Your task to perform on an android device: Is it going to rain this weekend? Image 0: 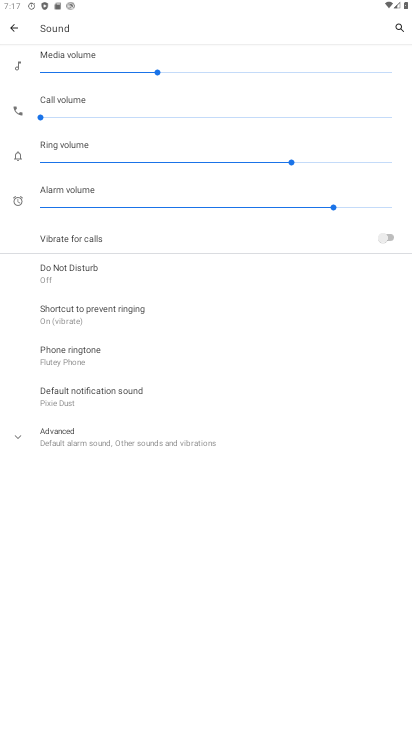
Step 0: press home button
Your task to perform on an android device: Is it going to rain this weekend? Image 1: 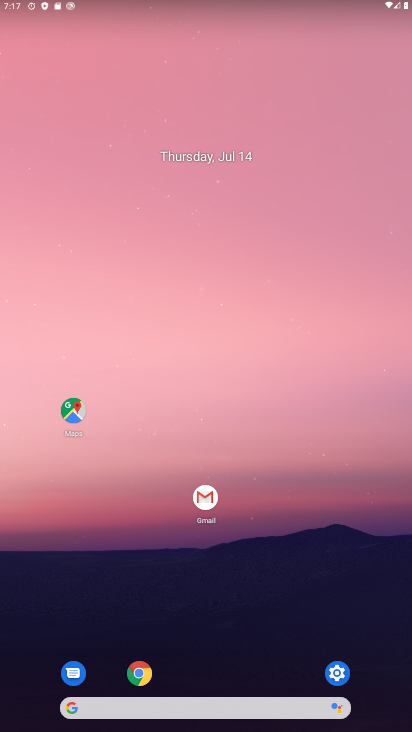
Step 1: click (196, 710)
Your task to perform on an android device: Is it going to rain this weekend? Image 2: 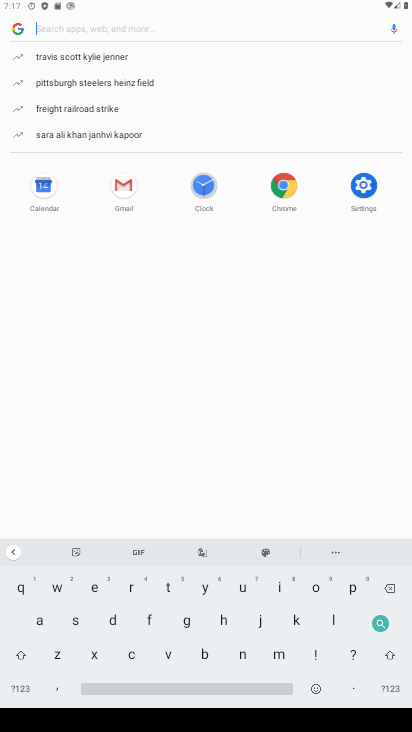
Step 2: click (128, 580)
Your task to perform on an android device: Is it going to rain this weekend? Image 3: 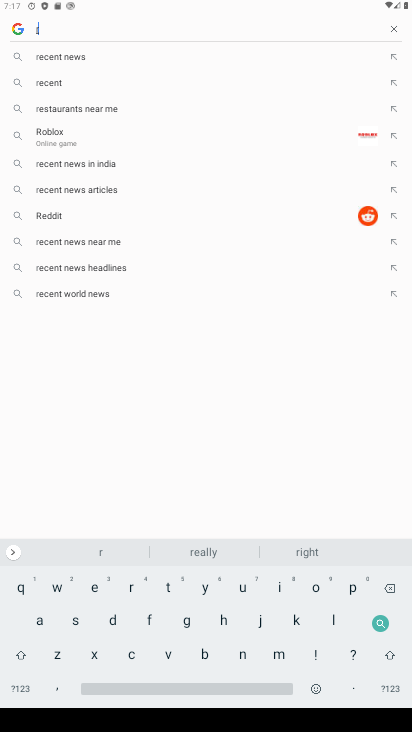
Step 3: click (30, 619)
Your task to perform on an android device: Is it going to rain this weekend? Image 4: 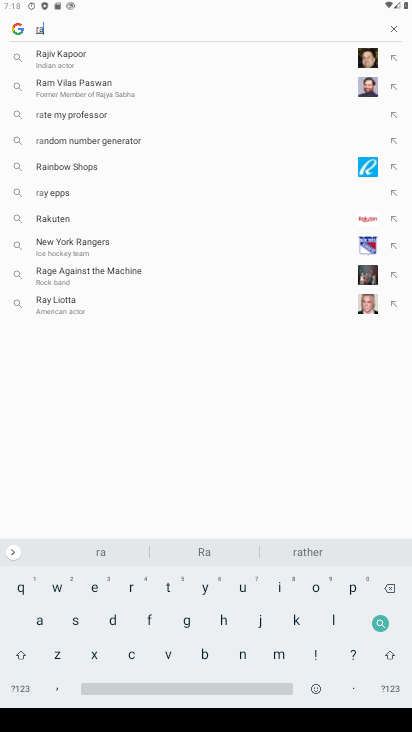
Step 4: click (280, 585)
Your task to perform on an android device: Is it going to rain this weekend? Image 5: 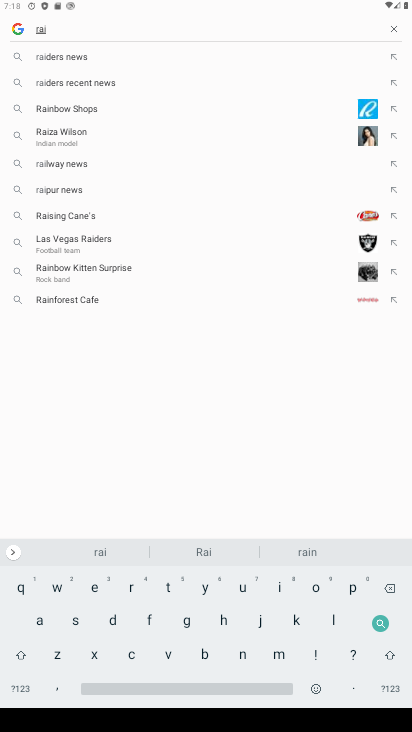
Step 5: click (242, 648)
Your task to perform on an android device: Is it going to rain this weekend? Image 6: 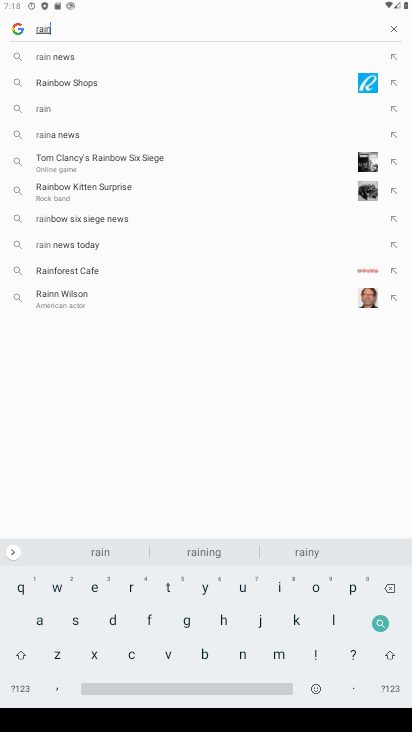
Step 6: click (181, 685)
Your task to perform on an android device: Is it going to rain this weekend? Image 7: 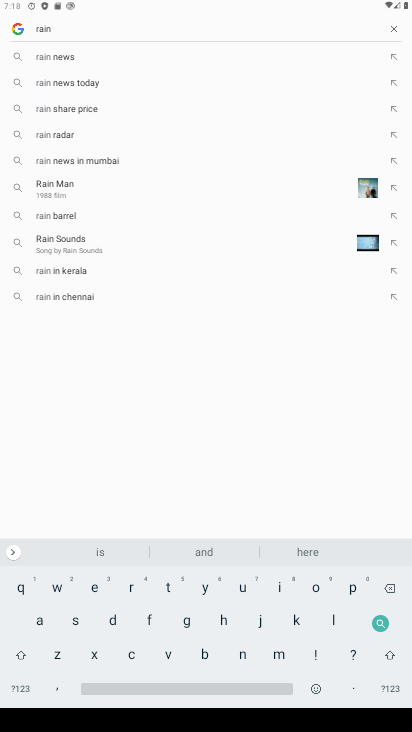
Step 7: click (169, 582)
Your task to perform on an android device: Is it going to rain this weekend? Image 8: 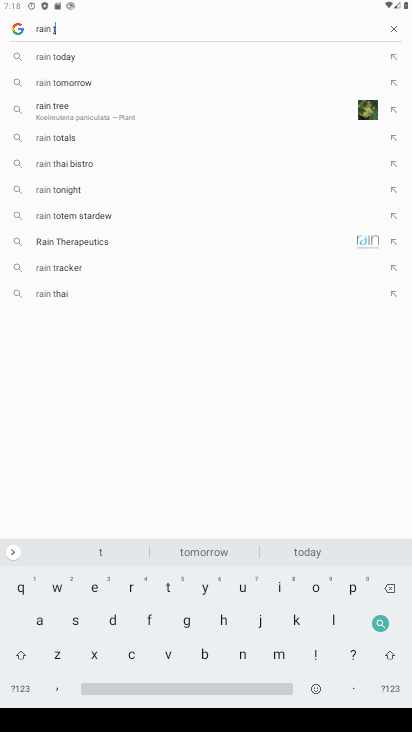
Step 8: click (223, 614)
Your task to perform on an android device: Is it going to rain this weekend? Image 9: 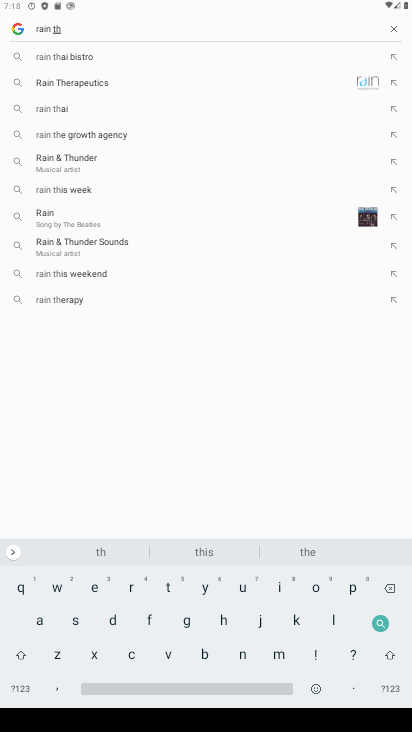
Step 9: click (276, 586)
Your task to perform on an android device: Is it going to rain this weekend? Image 10: 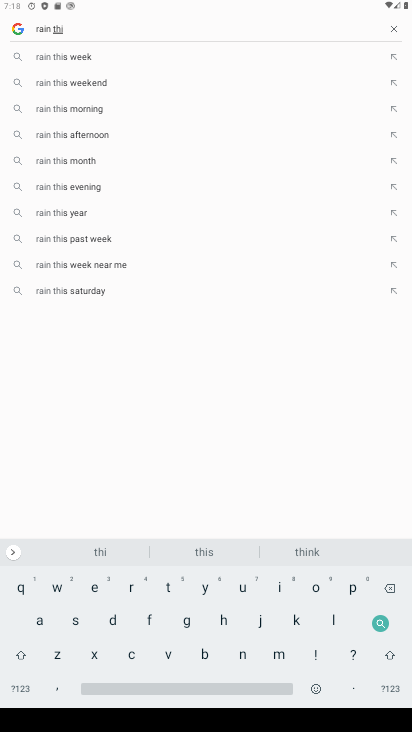
Step 10: click (72, 81)
Your task to perform on an android device: Is it going to rain this weekend? Image 11: 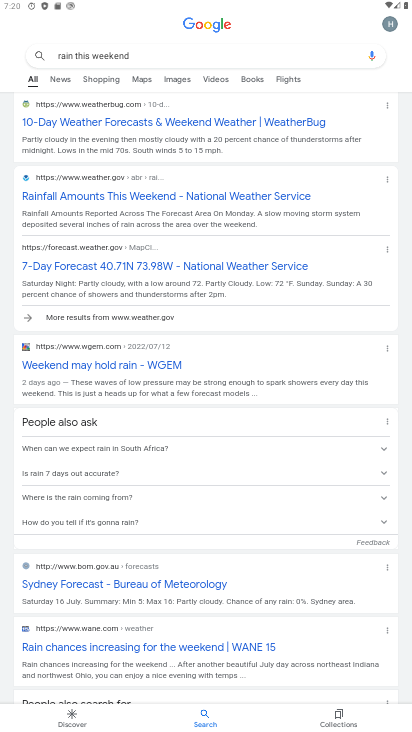
Step 11: task complete